Your task to perform on an android device: add a contact Image 0: 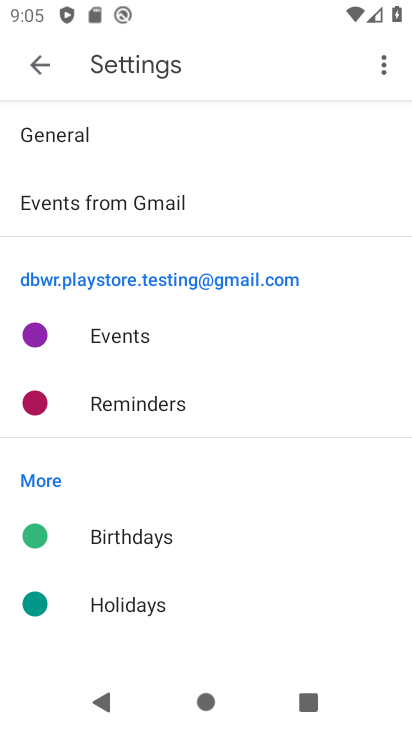
Step 0: press home button
Your task to perform on an android device: add a contact Image 1: 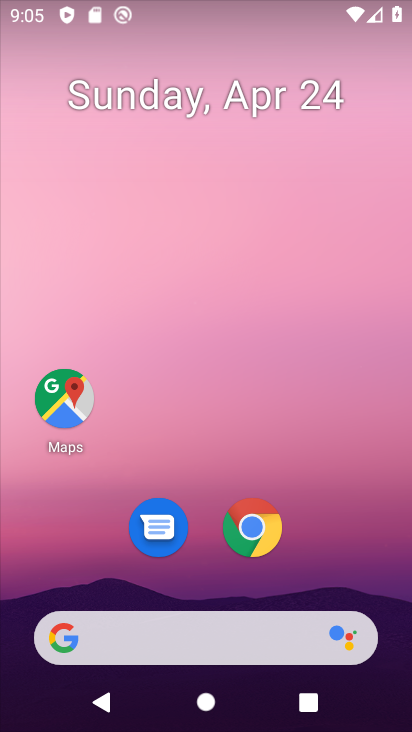
Step 1: drag from (160, 556) to (287, 82)
Your task to perform on an android device: add a contact Image 2: 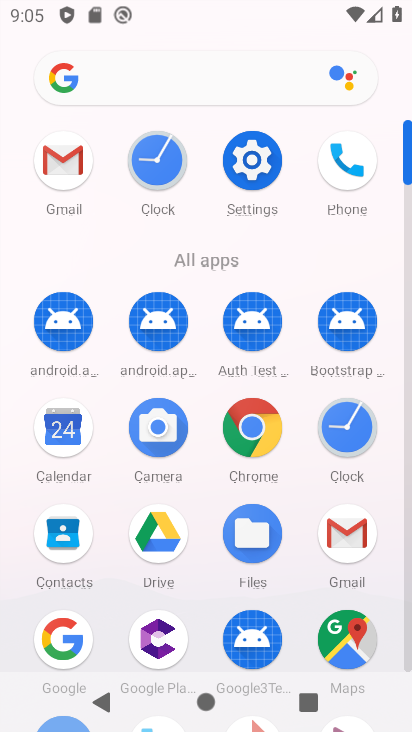
Step 2: click (73, 526)
Your task to perform on an android device: add a contact Image 3: 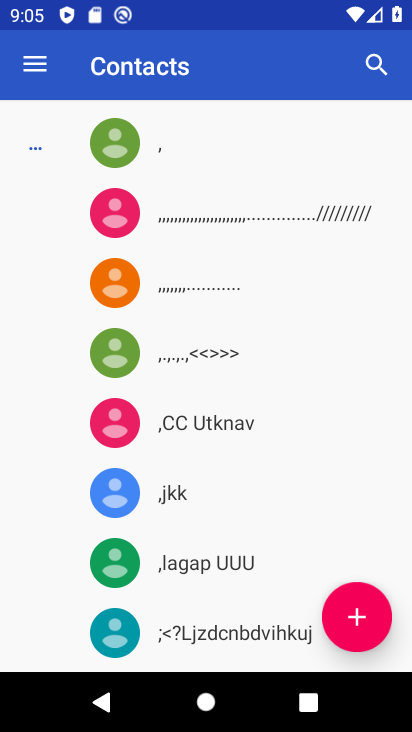
Step 3: click (352, 607)
Your task to perform on an android device: add a contact Image 4: 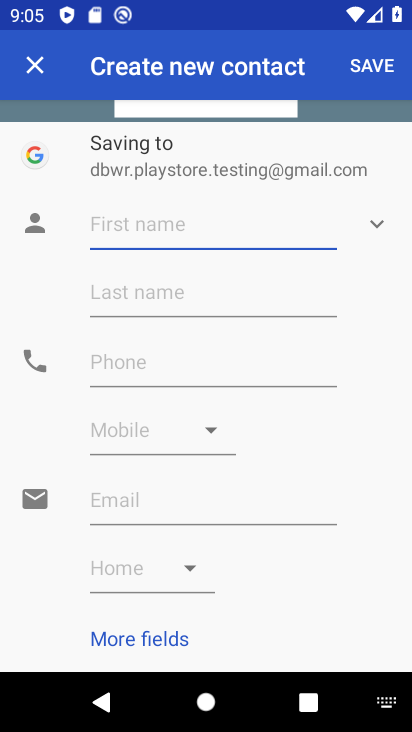
Step 4: click (144, 220)
Your task to perform on an android device: add a contact Image 5: 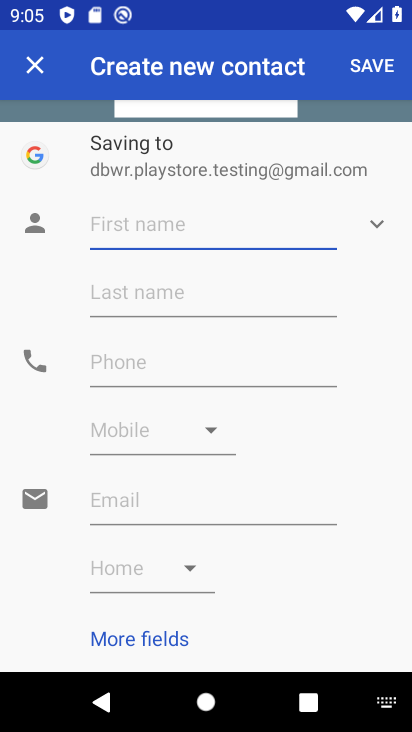
Step 5: type "hvfv"
Your task to perform on an android device: add a contact Image 6: 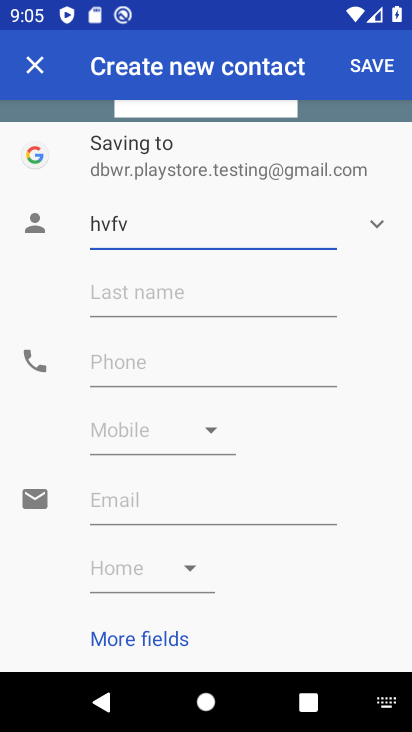
Step 6: type "'"
Your task to perform on an android device: add a contact Image 7: 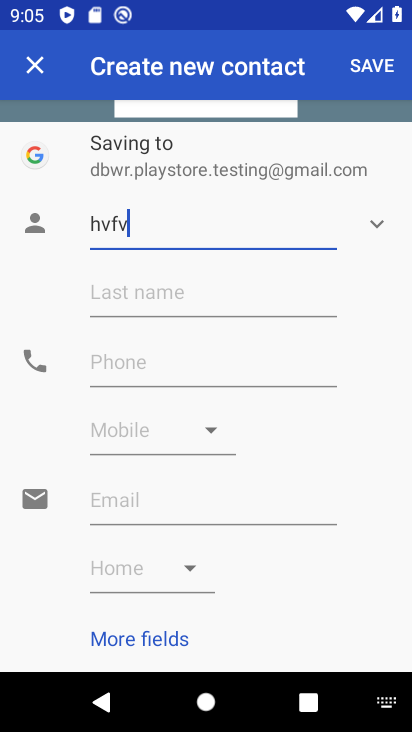
Step 7: click (137, 366)
Your task to perform on an android device: add a contact Image 8: 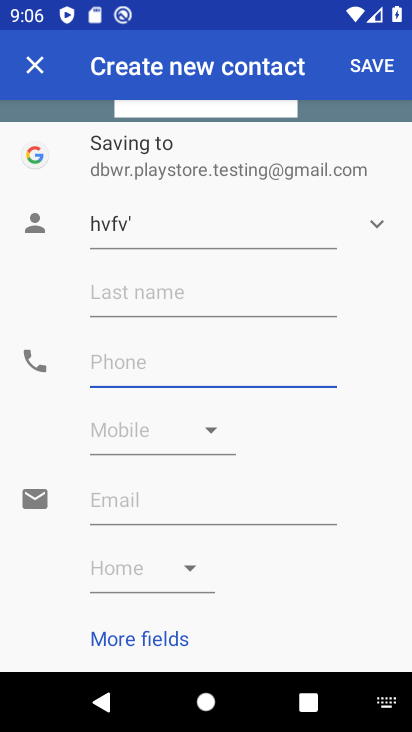
Step 8: type "75757"
Your task to perform on an android device: add a contact Image 9: 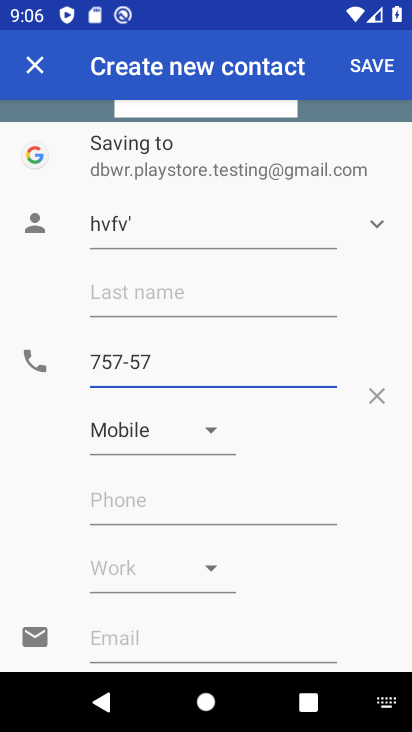
Step 9: click (367, 63)
Your task to perform on an android device: add a contact Image 10: 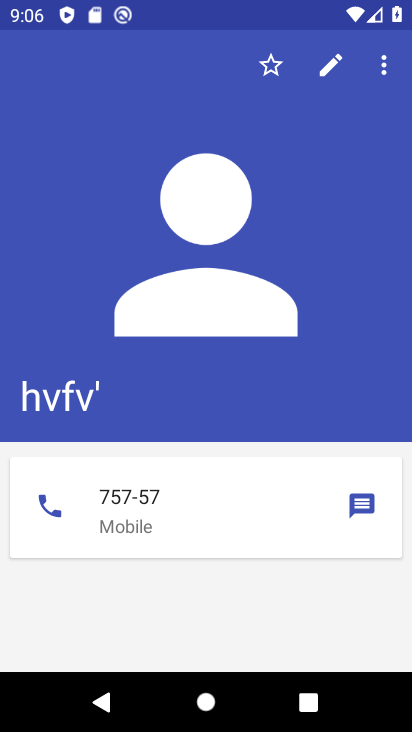
Step 10: task complete